Your task to perform on an android device: Open privacy settings Image 0: 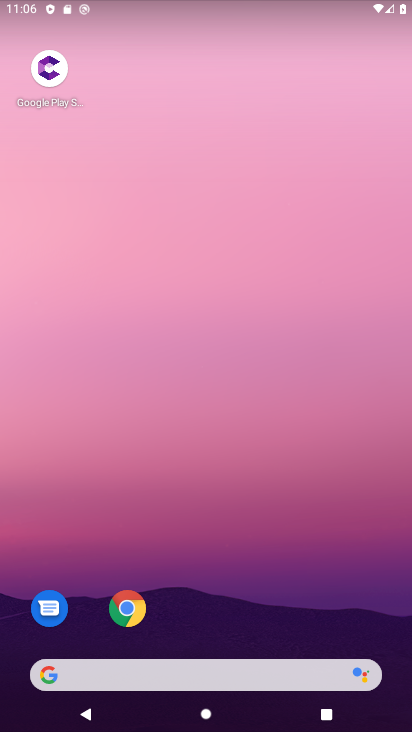
Step 0: drag from (199, 729) to (109, 56)
Your task to perform on an android device: Open privacy settings Image 1: 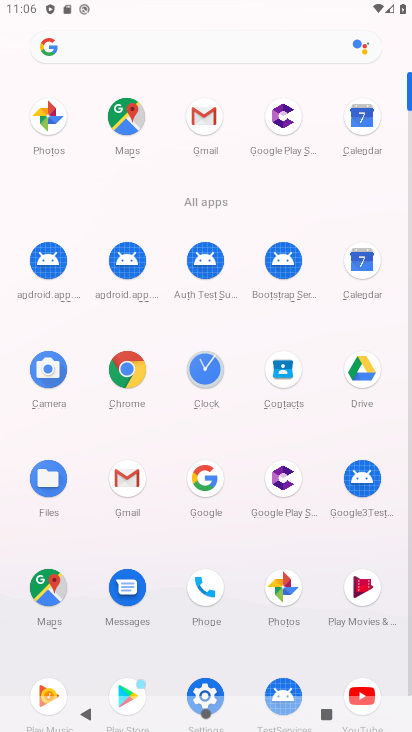
Step 1: click (207, 681)
Your task to perform on an android device: Open privacy settings Image 2: 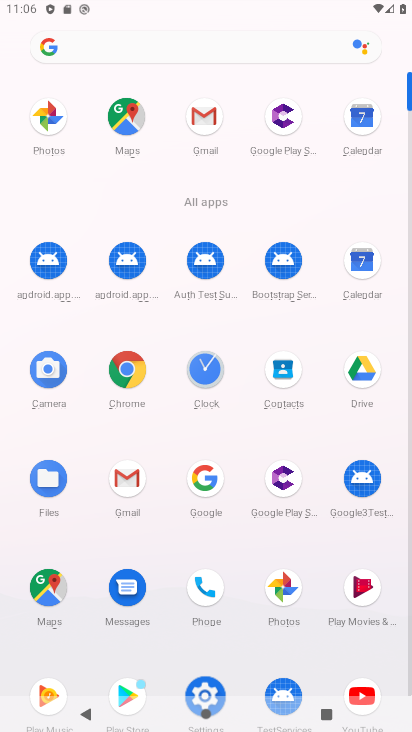
Step 2: click (210, 685)
Your task to perform on an android device: Open privacy settings Image 3: 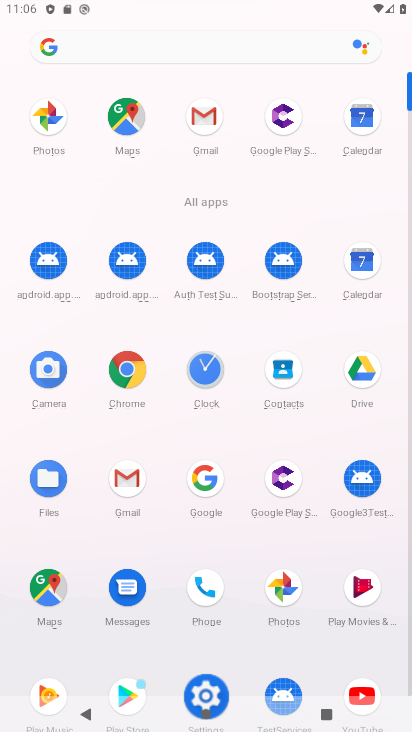
Step 3: click (209, 686)
Your task to perform on an android device: Open privacy settings Image 4: 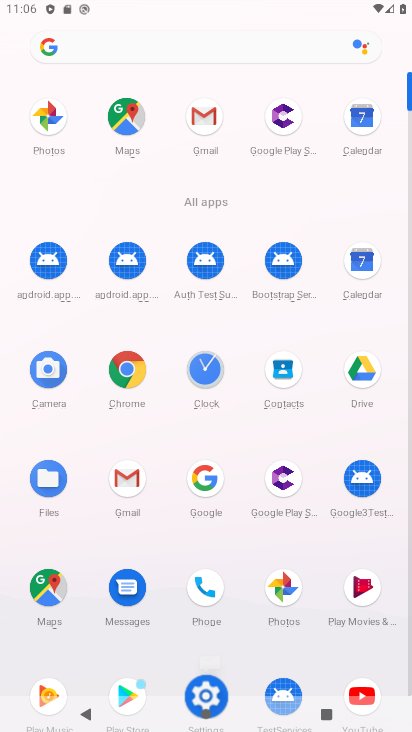
Step 4: click (209, 677)
Your task to perform on an android device: Open privacy settings Image 5: 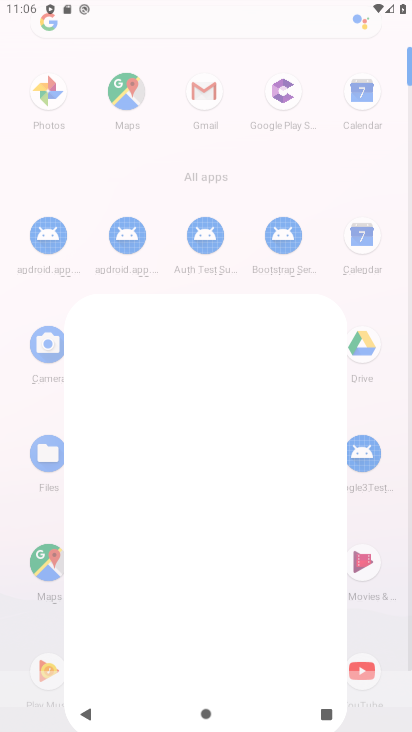
Step 5: click (214, 675)
Your task to perform on an android device: Open privacy settings Image 6: 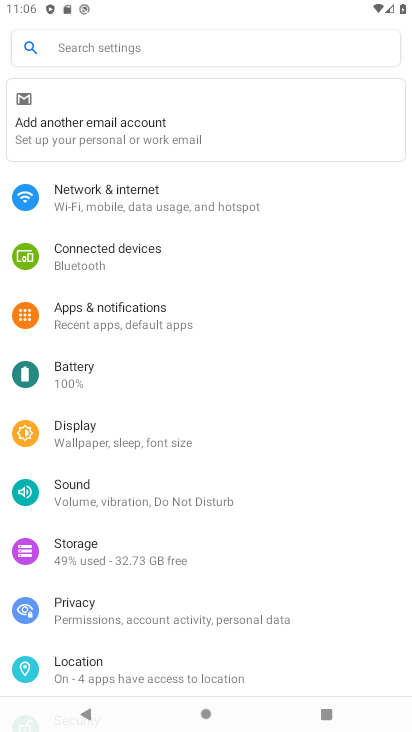
Step 6: click (73, 601)
Your task to perform on an android device: Open privacy settings Image 7: 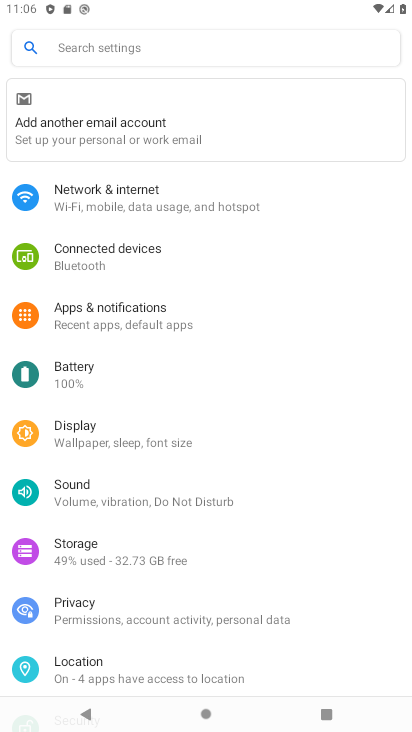
Step 7: click (77, 605)
Your task to perform on an android device: Open privacy settings Image 8: 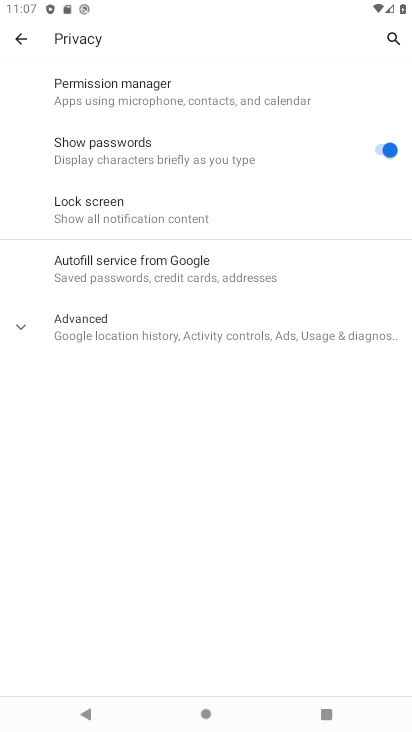
Step 8: click (20, 46)
Your task to perform on an android device: Open privacy settings Image 9: 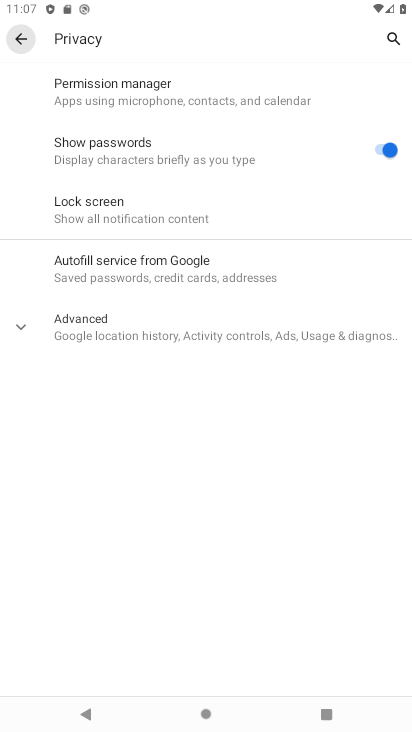
Step 9: click (20, 47)
Your task to perform on an android device: Open privacy settings Image 10: 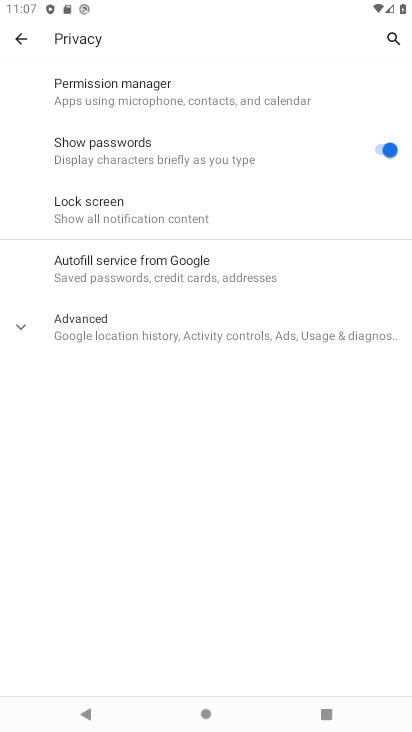
Step 10: click (17, 44)
Your task to perform on an android device: Open privacy settings Image 11: 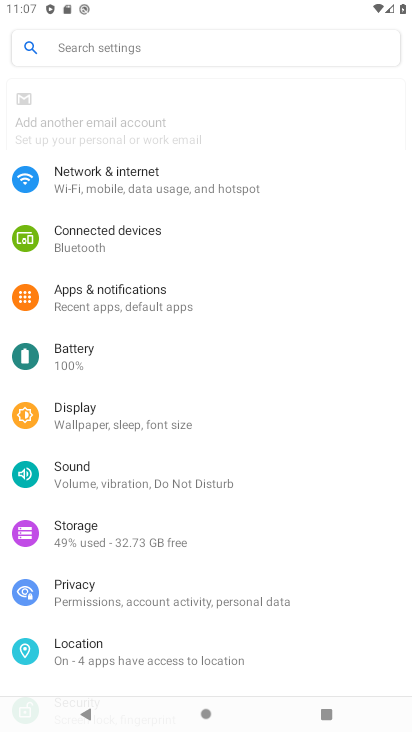
Step 11: task complete